Your task to perform on an android device: What's the news in Bangladesh? Image 0: 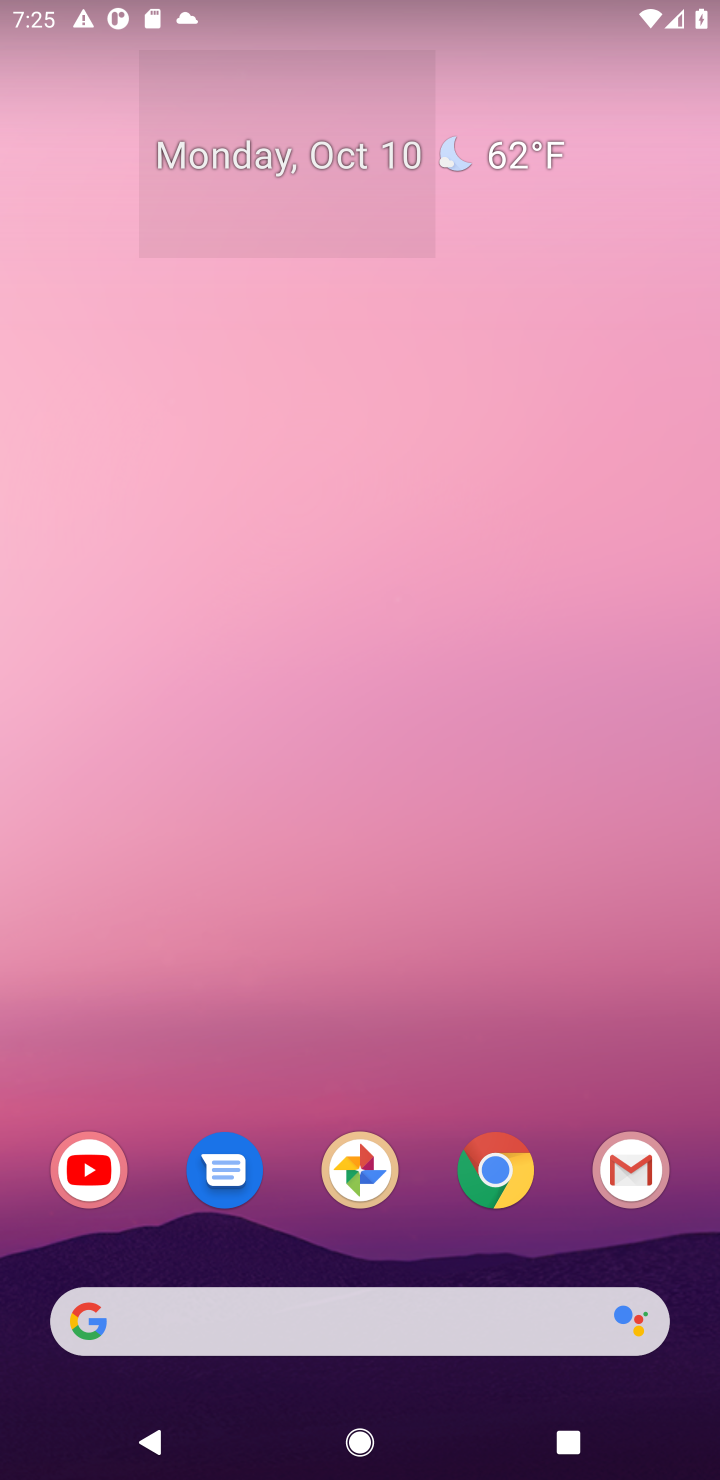
Step 0: click (502, 1166)
Your task to perform on an android device: What's the news in Bangladesh? Image 1: 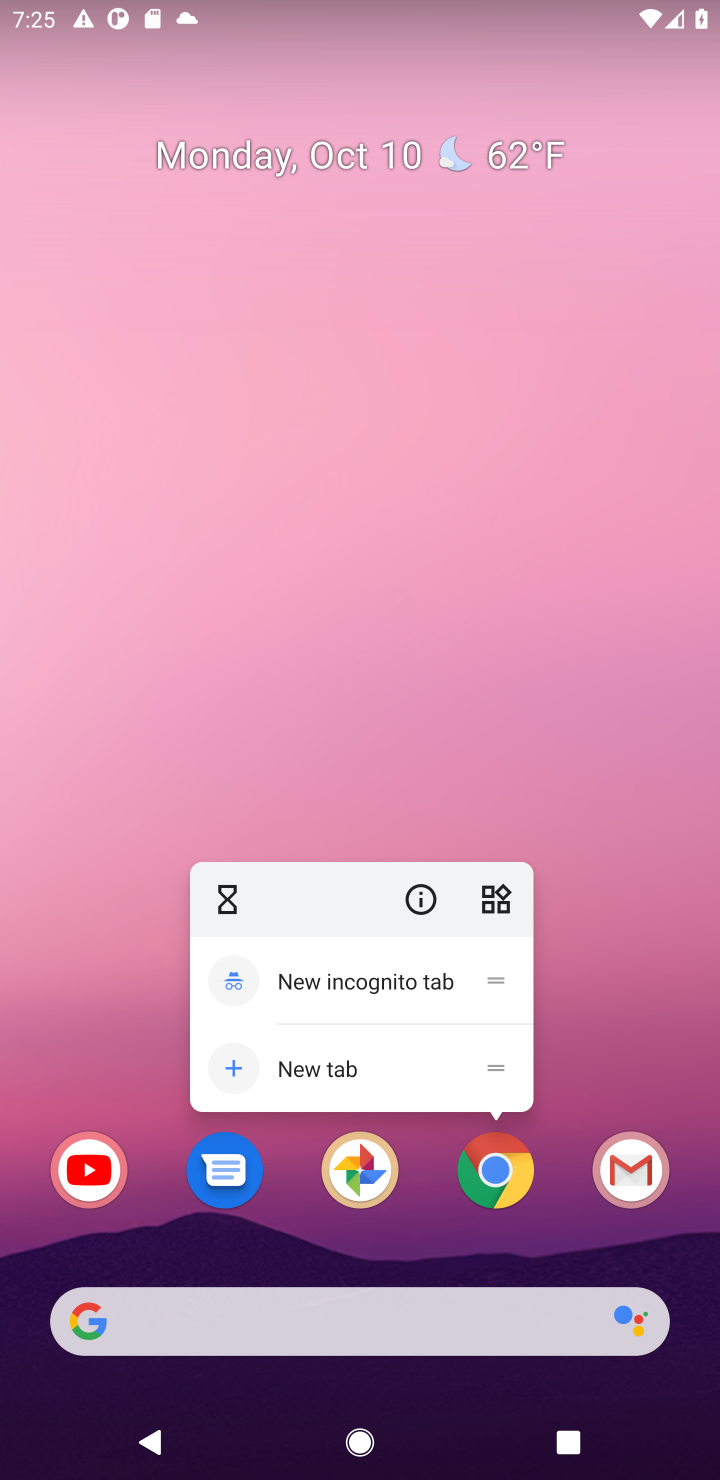
Step 1: click (502, 1166)
Your task to perform on an android device: What's the news in Bangladesh? Image 2: 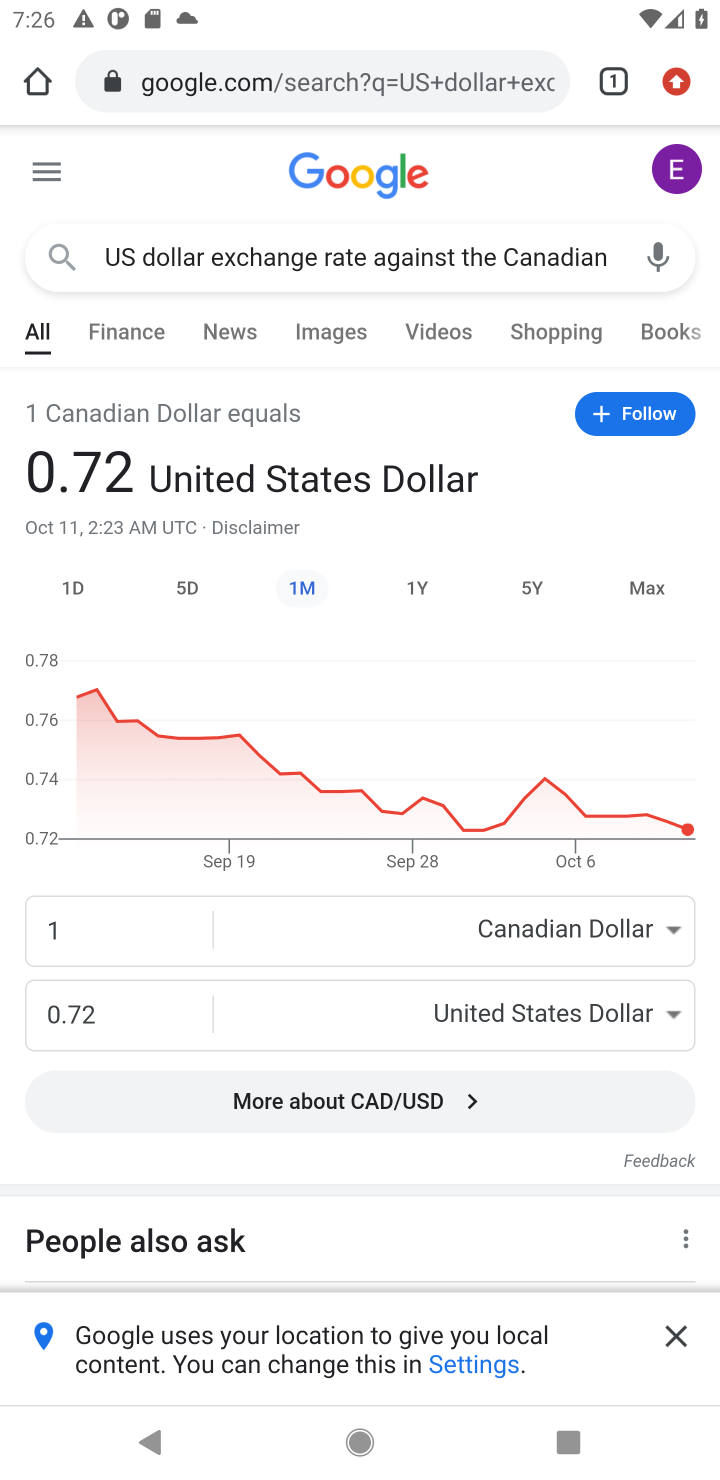
Step 2: click (365, 67)
Your task to perform on an android device: What's the news in Bangladesh? Image 3: 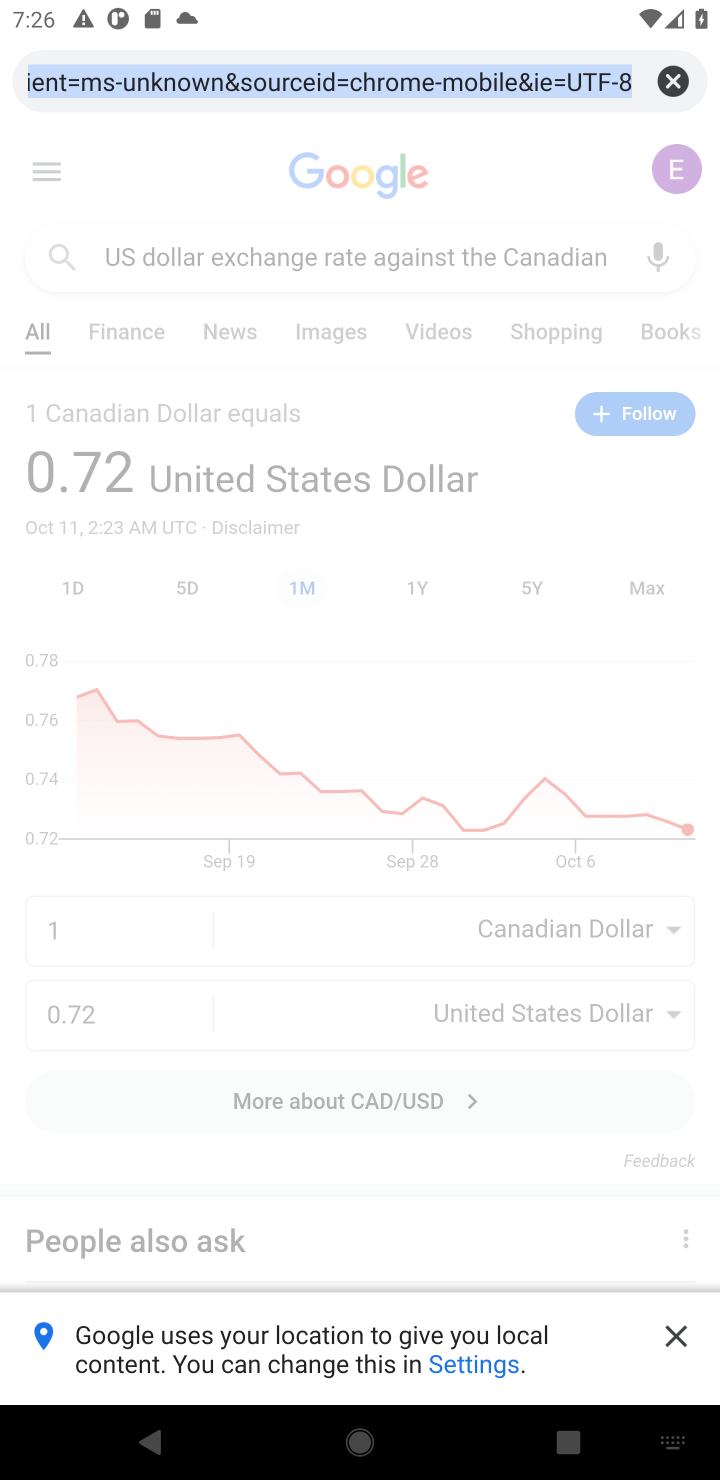
Step 3: type "bangladesh"
Your task to perform on an android device: What's the news in Bangladesh? Image 4: 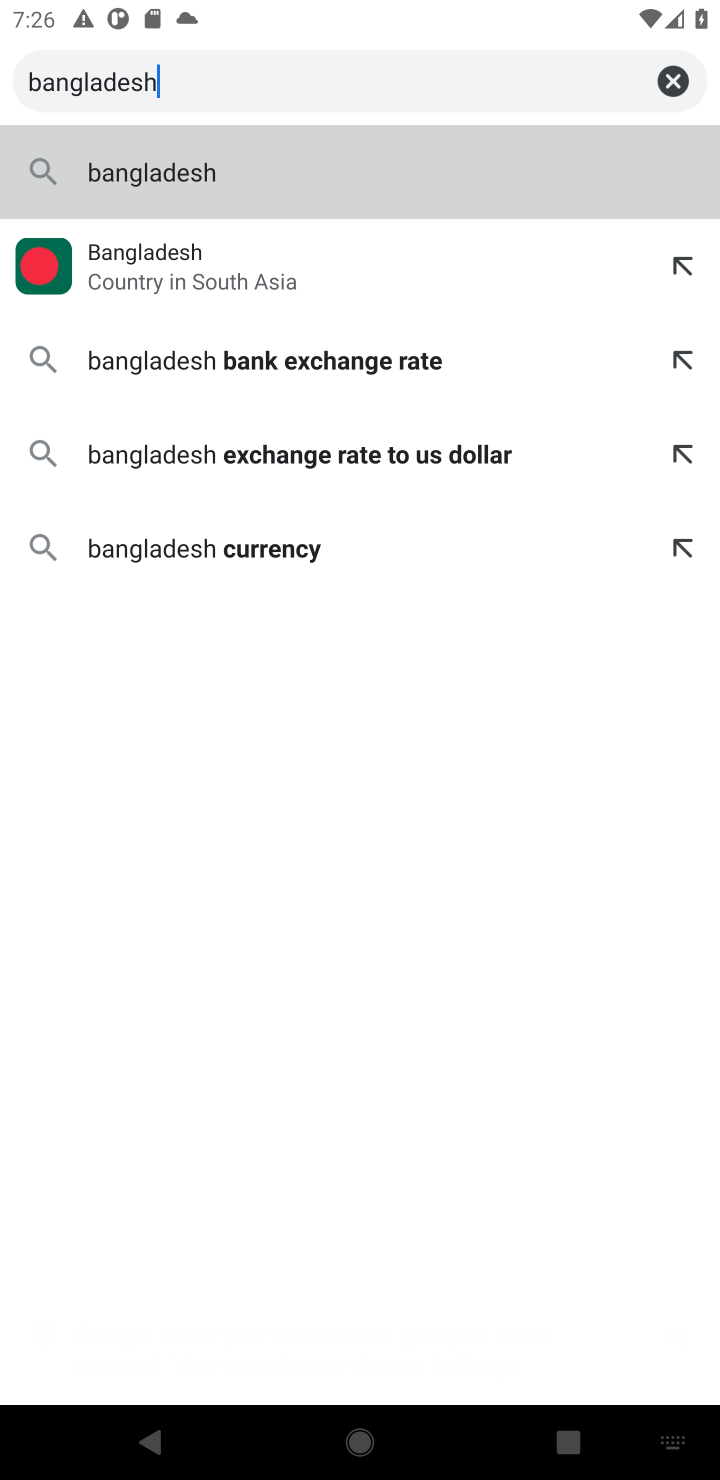
Step 4: click (145, 188)
Your task to perform on an android device: What's the news in Bangladesh? Image 5: 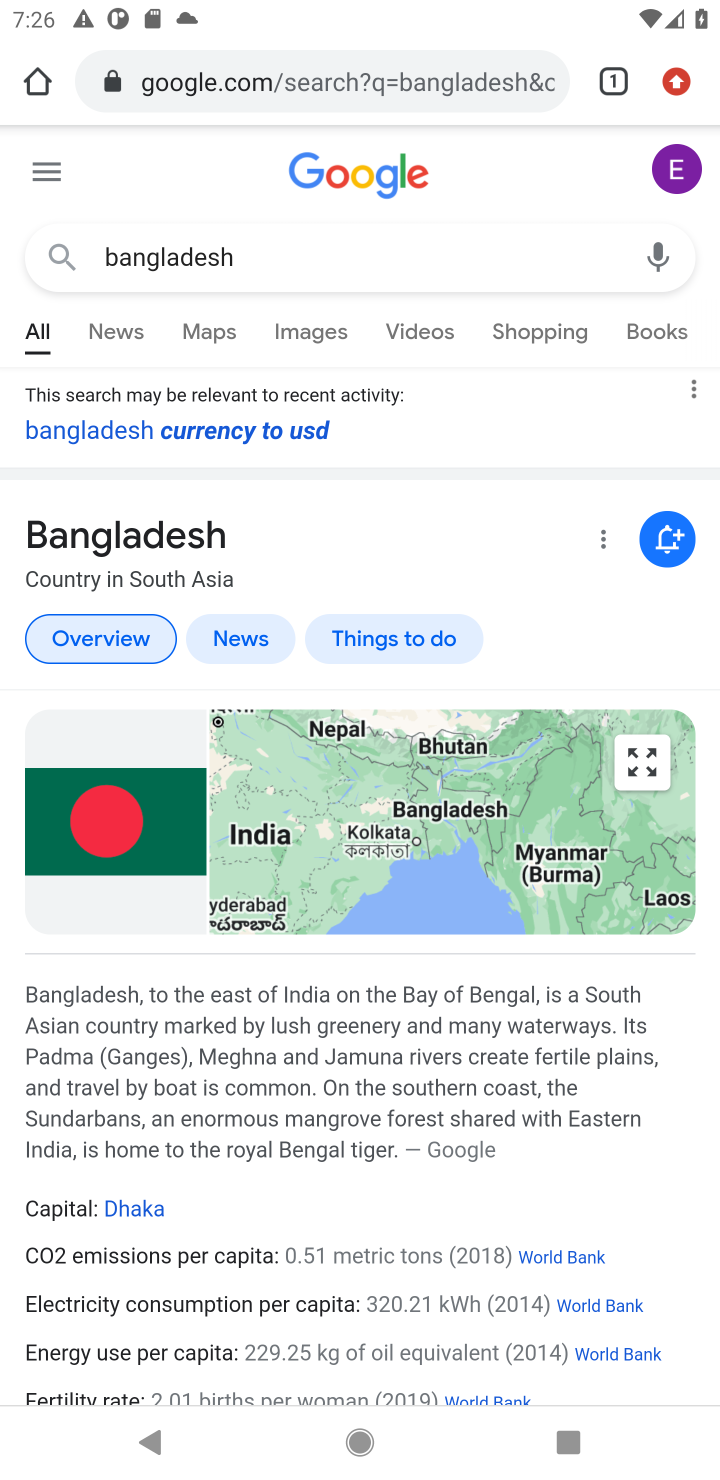
Step 5: click (118, 329)
Your task to perform on an android device: What's the news in Bangladesh? Image 6: 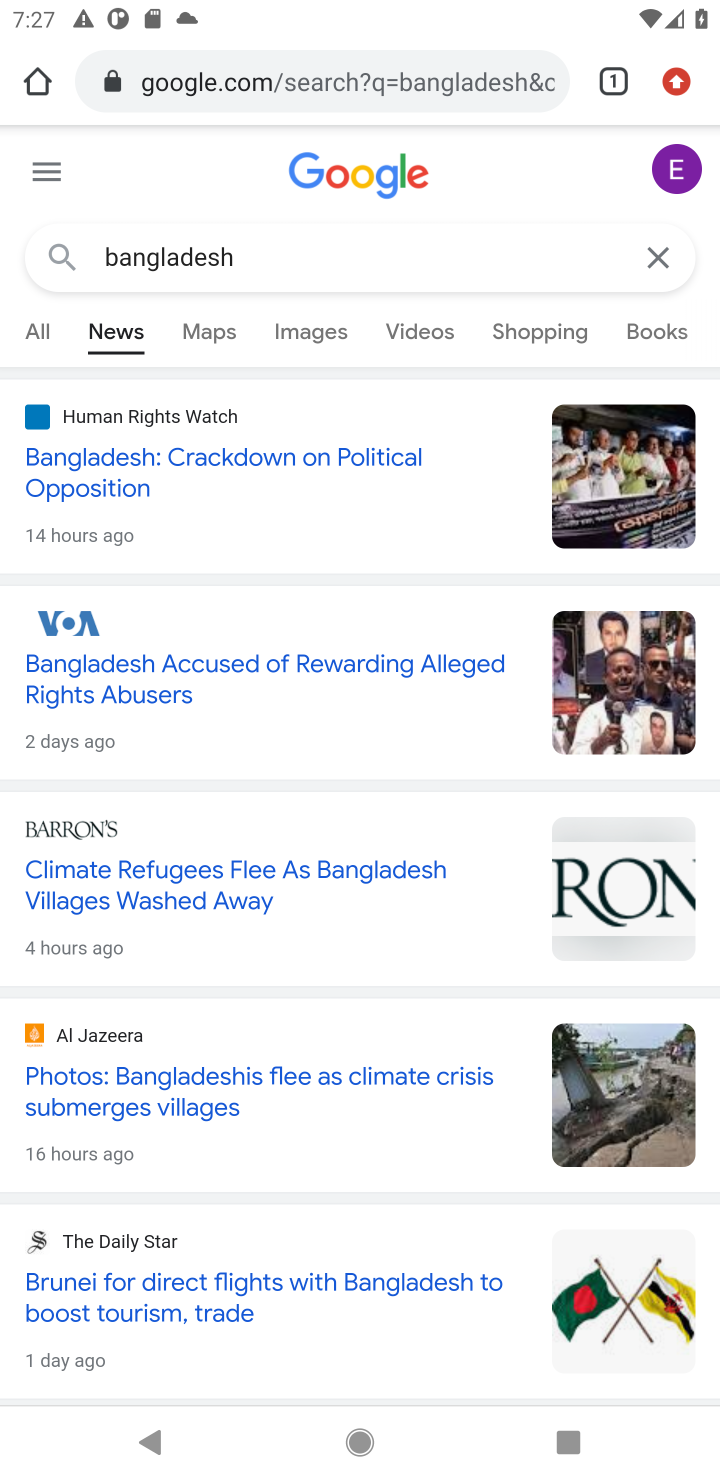
Step 6: task complete